Your task to perform on an android device: Show me popular games on the Play Store Image 0: 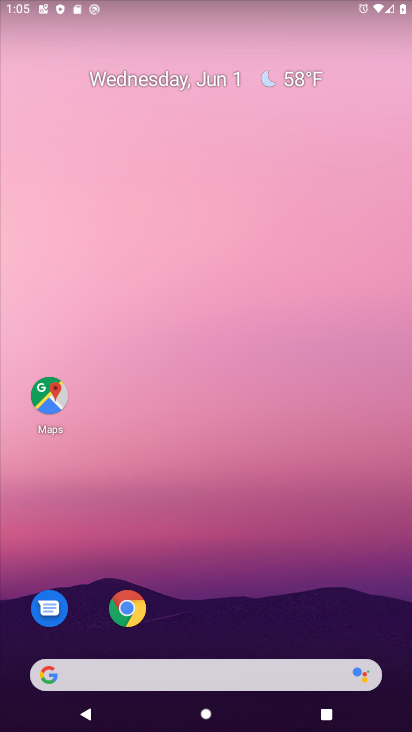
Step 0: drag from (284, 464) to (327, 90)
Your task to perform on an android device: Show me popular games on the Play Store Image 1: 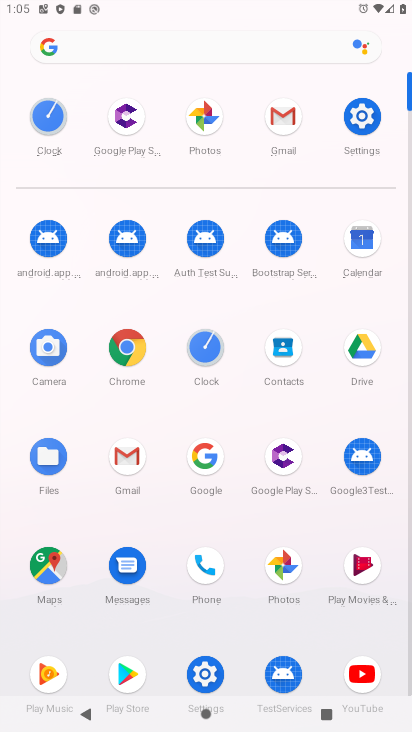
Step 1: click (351, 679)
Your task to perform on an android device: Show me popular games on the Play Store Image 2: 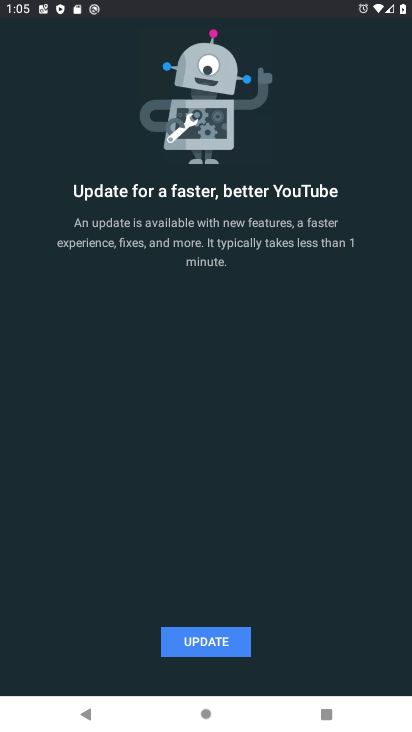
Step 2: click (214, 646)
Your task to perform on an android device: Show me popular games on the Play Store Image 3: 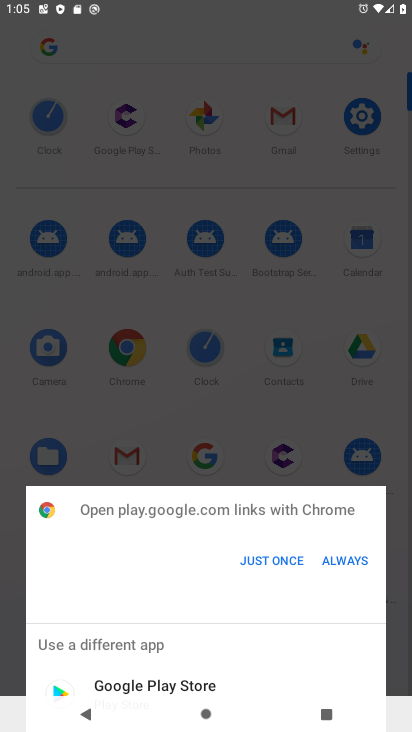
Step 3: click (294, 558)
Your task to perform on an android device: Show me popular games on the Play Store Image 4: 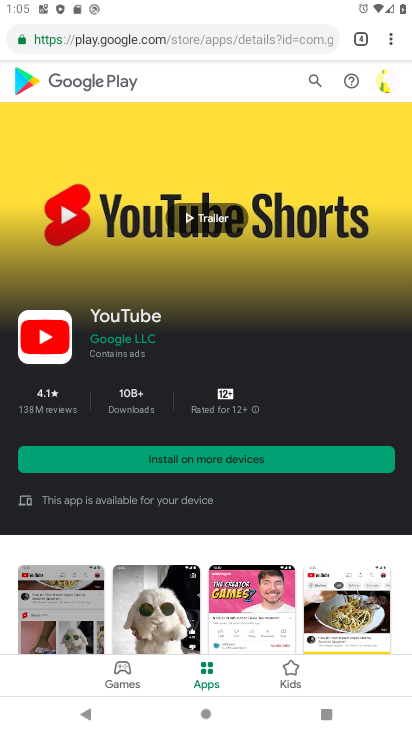
Step 4: click (205, 463)
Your task to perform on an android device: Show me popular games on the Play Store Image 5: 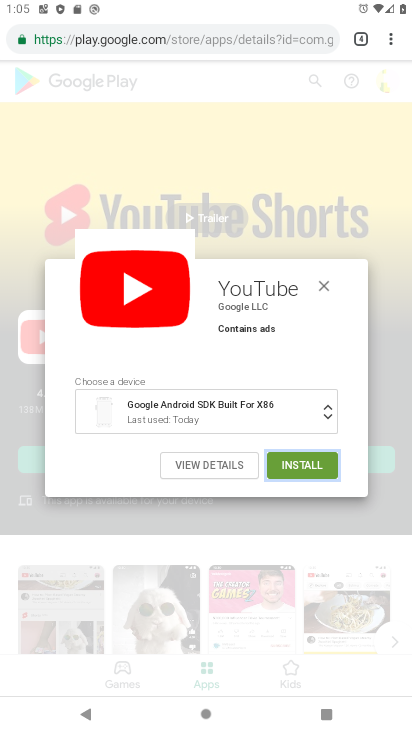
Step 5: click (295, 463)
Your task to perform on an android device: Show me popular games on the Play Store Image 6: 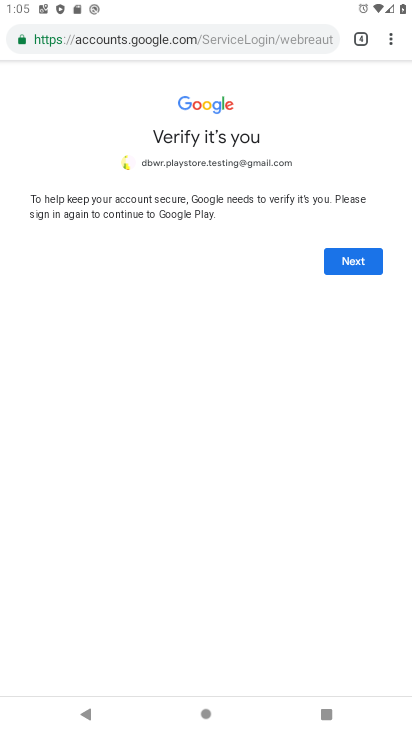
Step 6: click (363, 248)
Your task to perform on an android device: Show me popular games on the Play Store Image 7: 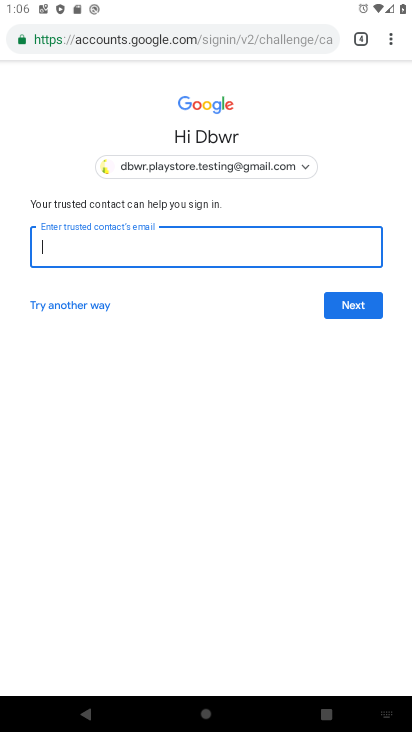
Step 7: task complete